Your task to perform on an android device: Open calendar and show me the first week of next month Image 0: 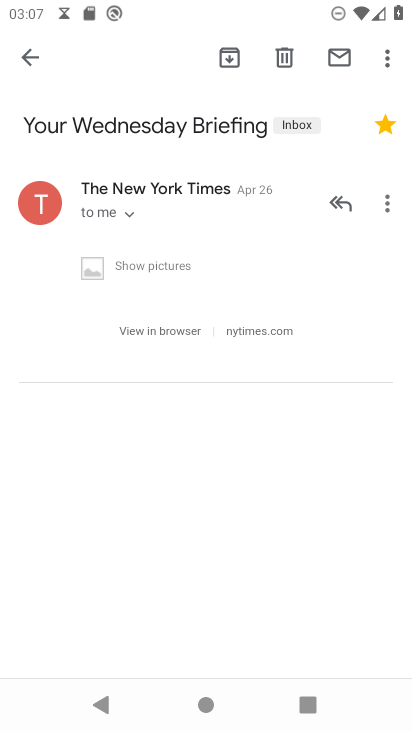
Step 0: press home button
Your task to perform on an android device: Open calendar and show me the first week of next month Image 1: 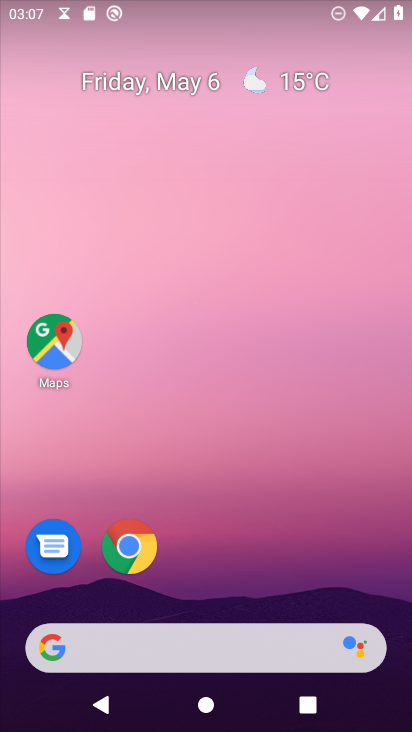
Step 1: click (144, 69)
Your task to perform on an android device: Open calendar and show me the first week of next month Image 2: 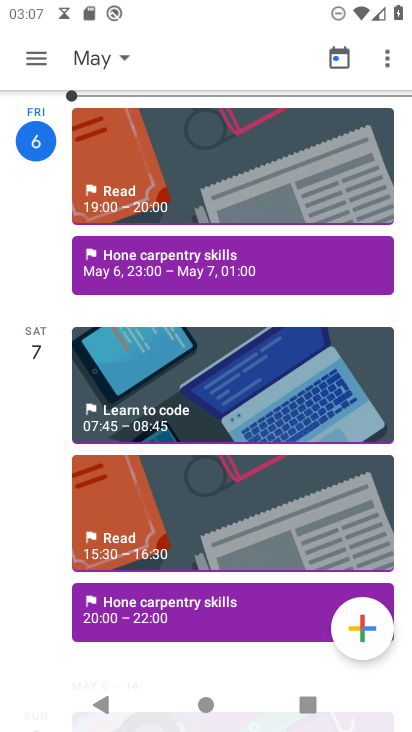
Step 2: click (37, 61)
Your task to perform on an android device: Open calendar and show me the first week of next month Image 3: 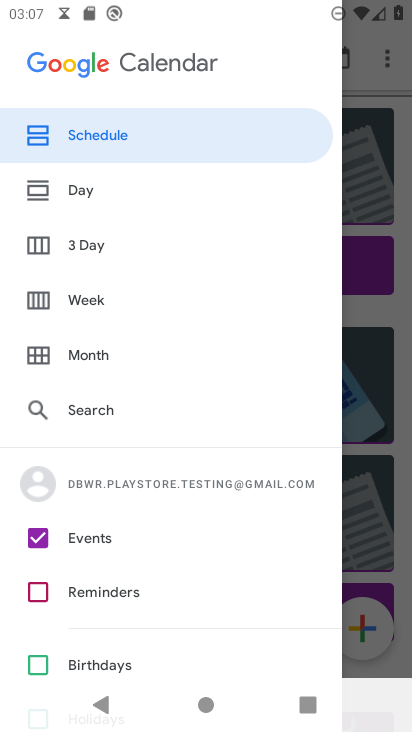
Step 3: click (60, 289)
Your task to perform on an android device: Open calendar and show me the first week of next month Image 4: 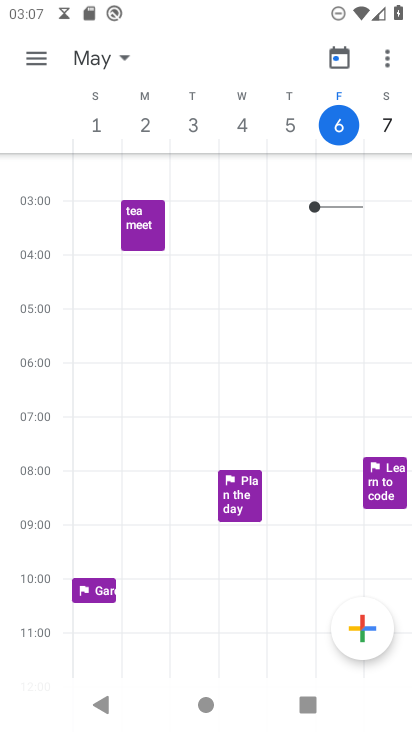
Step 4: click (123, 51)
Your task to perform on an android device: Open calendar and show me the first week of next month Image 5: 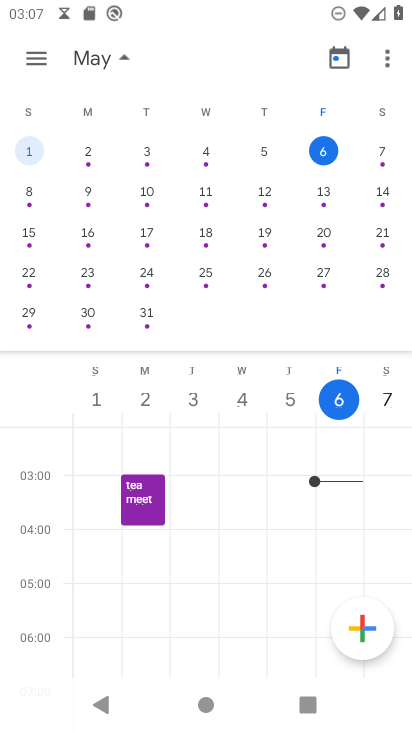
Step 5: drag from (259, 231) to (3, 187)
Your task to perform on an android device: Open calendar and show me the first week of next month Image 6: 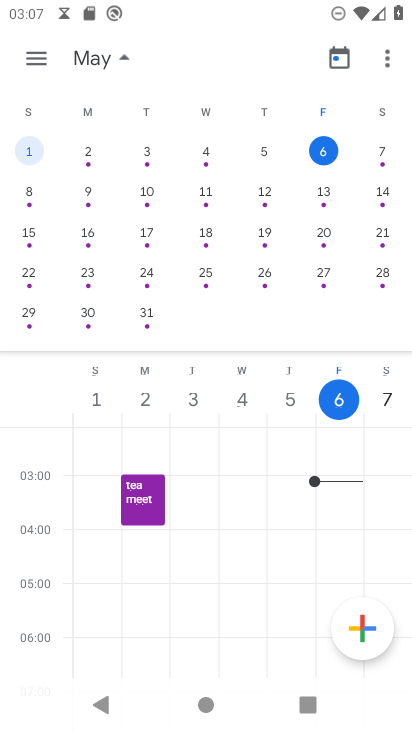
Step 6: click (148, 158)
Your task to perform on an android device: Open calendar and show me the first week of next month Image 7: 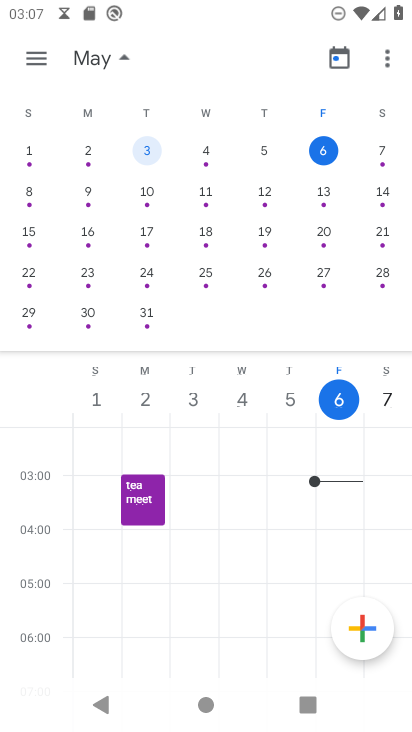
Step 7: drag from (355, 265) to (4, 214)
Your task to perform on an android device: Open calendar and show me the first week of next month Image 8: 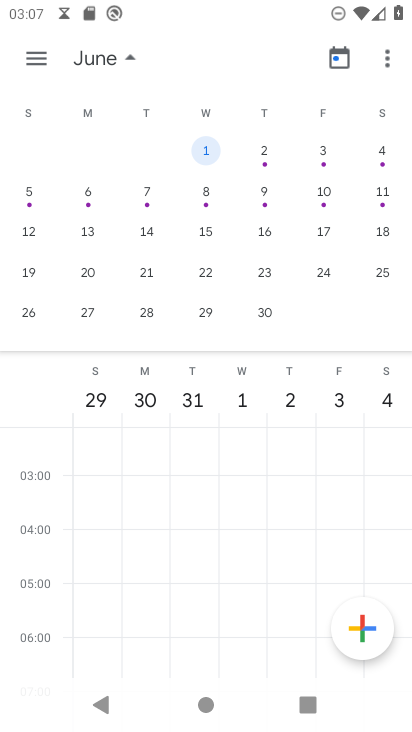
Step 8: click (268, 150)
Your task to perform on an android device: Open calendar and show me the first week of next month Image 9: 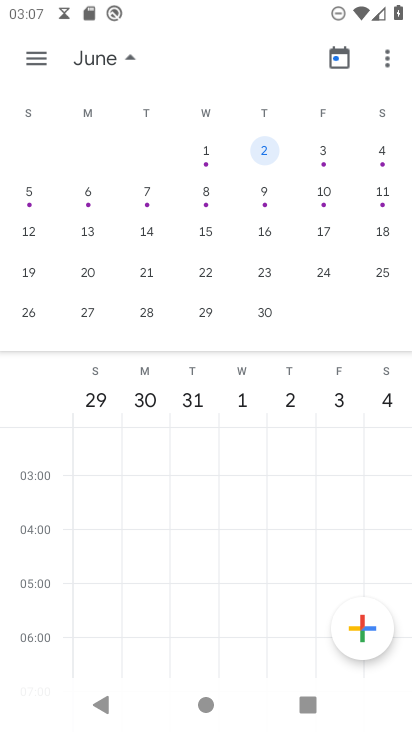
Step 9: task complete